Your task to perform on an android device: toggle sleep mode Image 0: 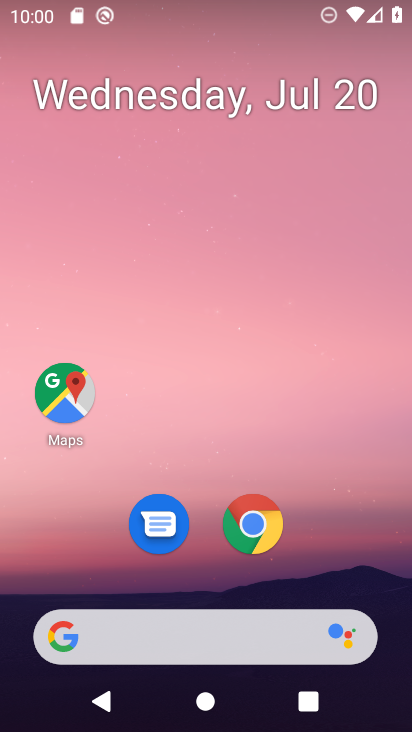
Step 0: drag from (180, 639) to (266, 42)
Your task to perform on an android device: toggle sleep mode Image 1: 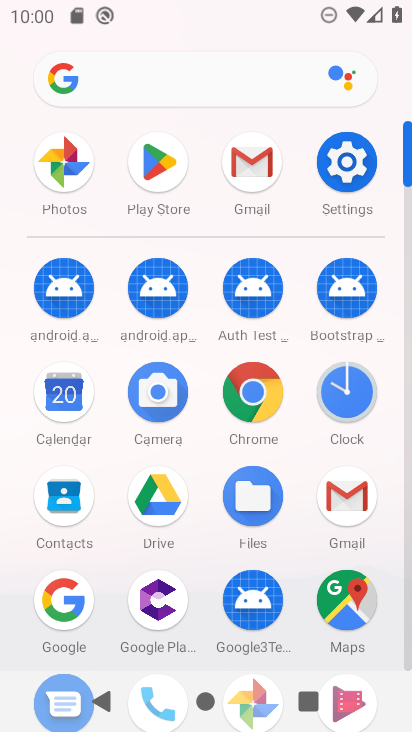
Step 1: click (356, 166)
Your task to perform on an android device: toggle sleep mode Image 2: 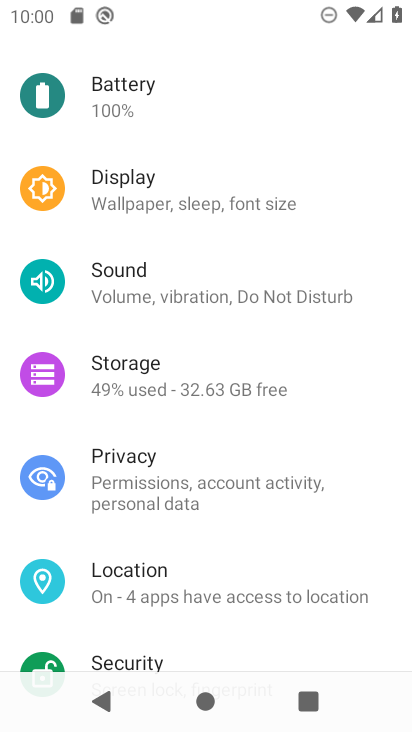
Step 2: click (203, 200)
Your task to perform on an android device: toggle sleep mode Image 3: 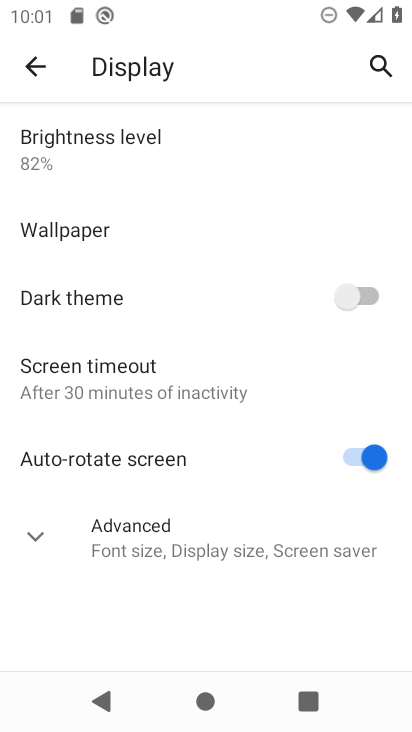
Step 3: task complete